Your task to perform on an android device: Check the news Image 0: 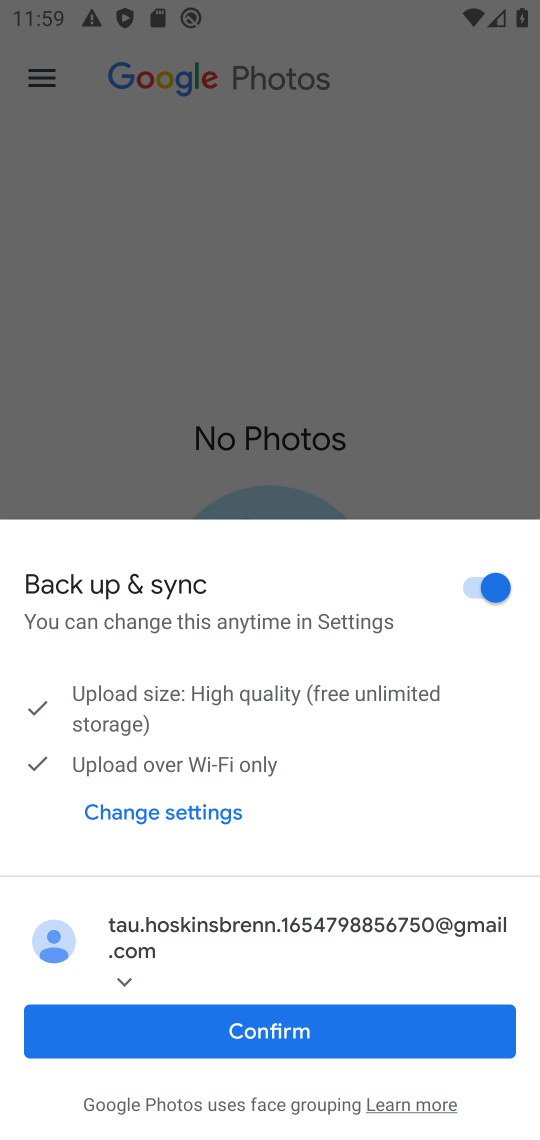
Step 0: press home button
Your task to perform on an android device: Check the news Image 1: 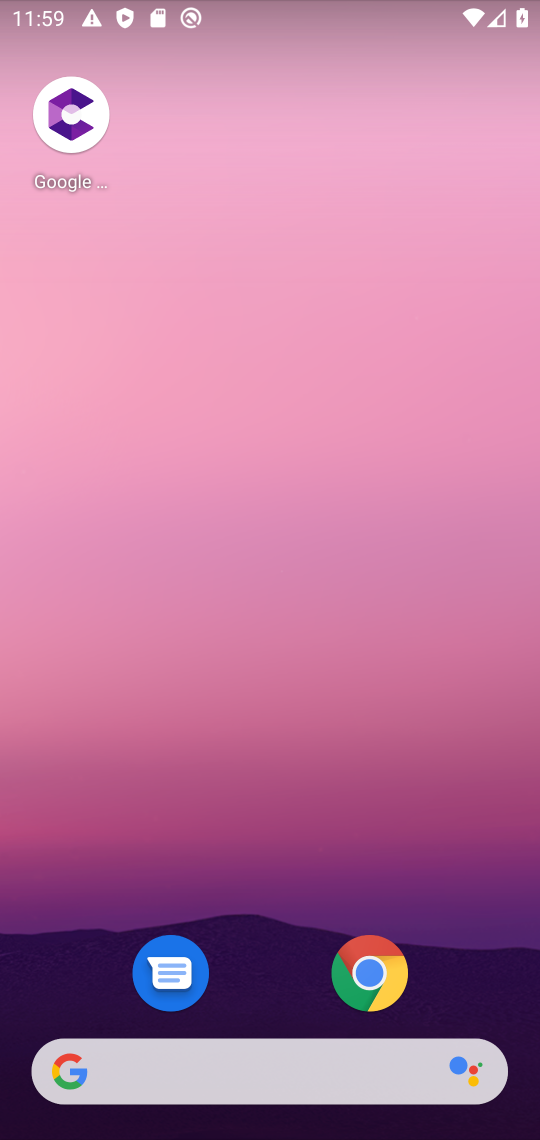
Step 1: click (354, 971)
Your task to perform on an android device: Check the news Image 2: 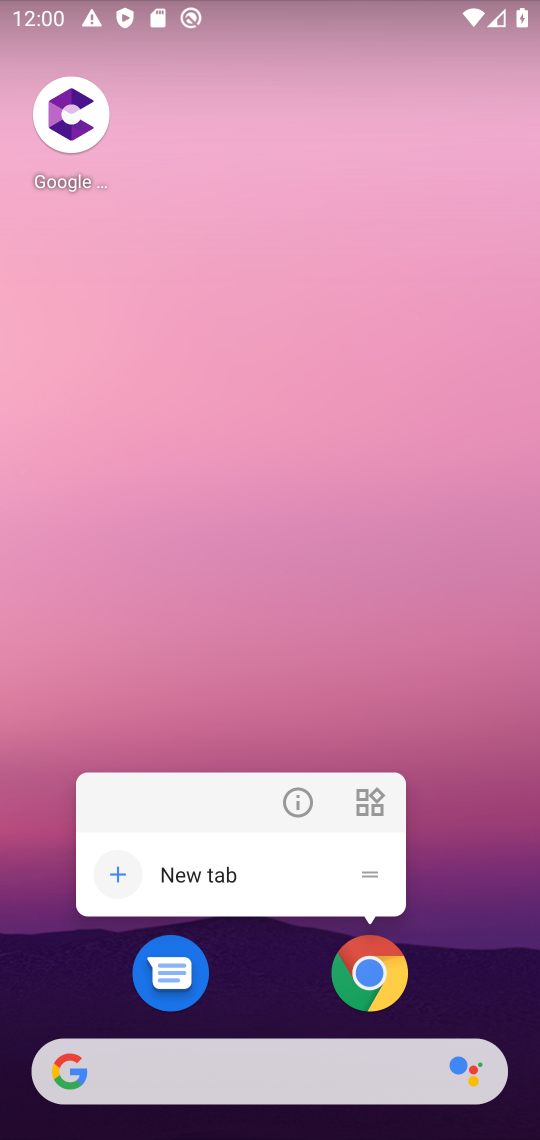
Step 2: click (379, 977)
Your task to perform on an android device: Check the news Image 3: 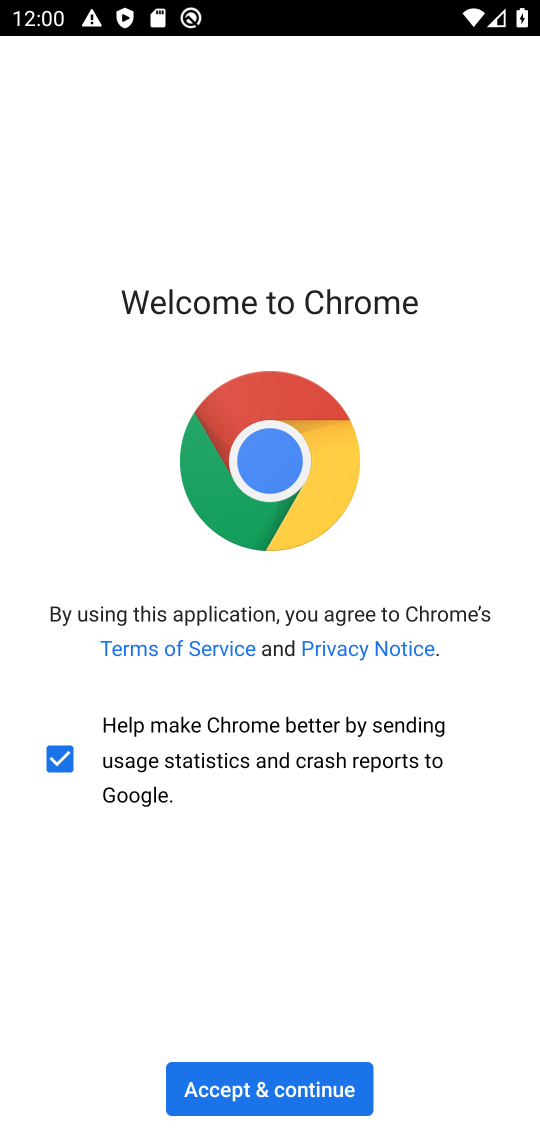
Step 3: click (285, 1074)
Your task to perform on an android device: Check the news Image 4: 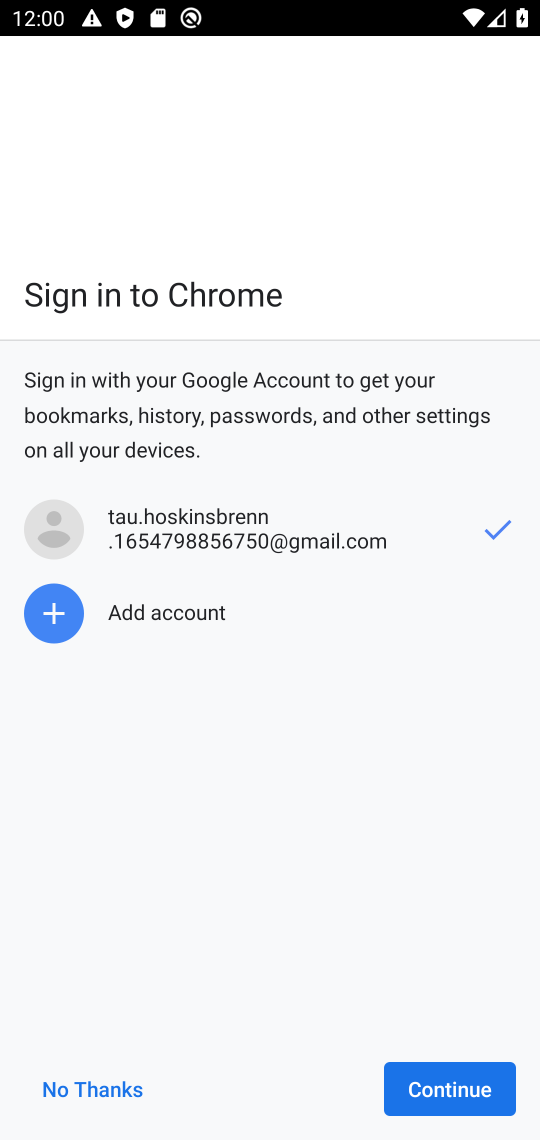
Step 4: click (432, 1079)
Your task to perform on an android device: Check the news Image 5: 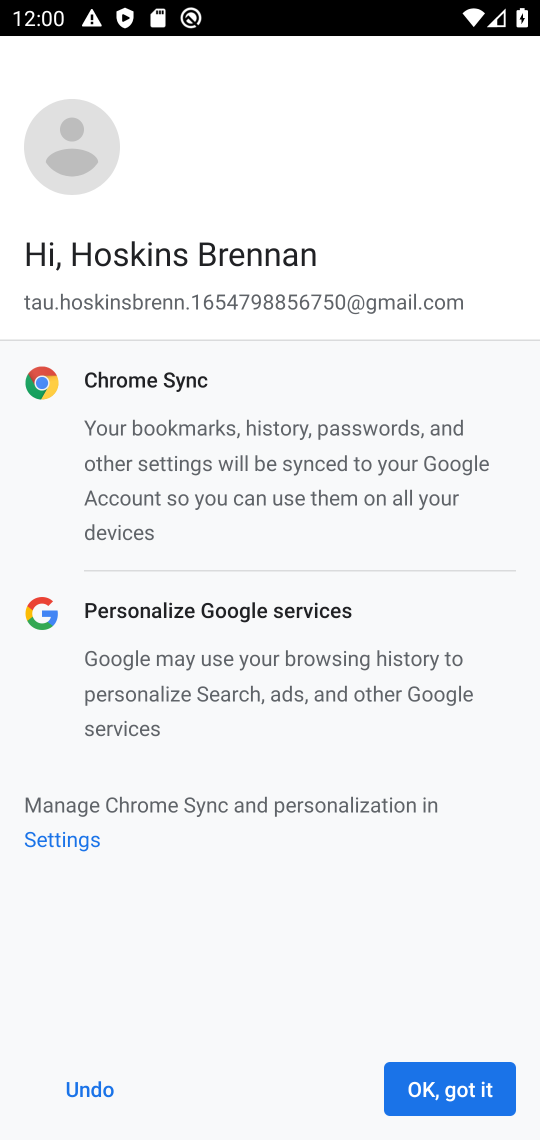
Step 5: click (459, 1093)
Your task to perform on an android device: Check the news Image 6: 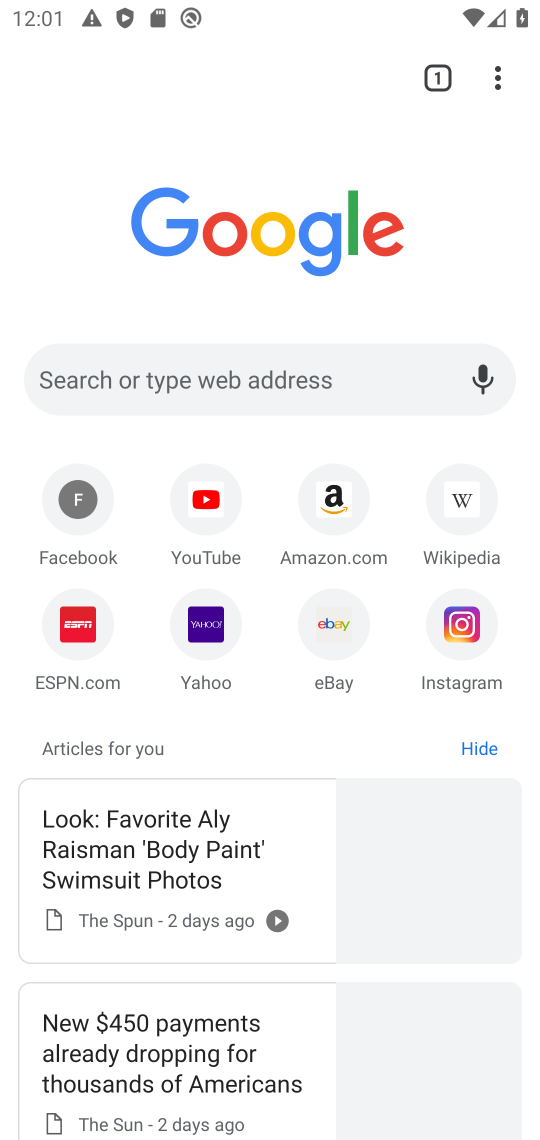
Step 6: click (196, 397)
Your task to perform on an android device: Check the news Image 7: 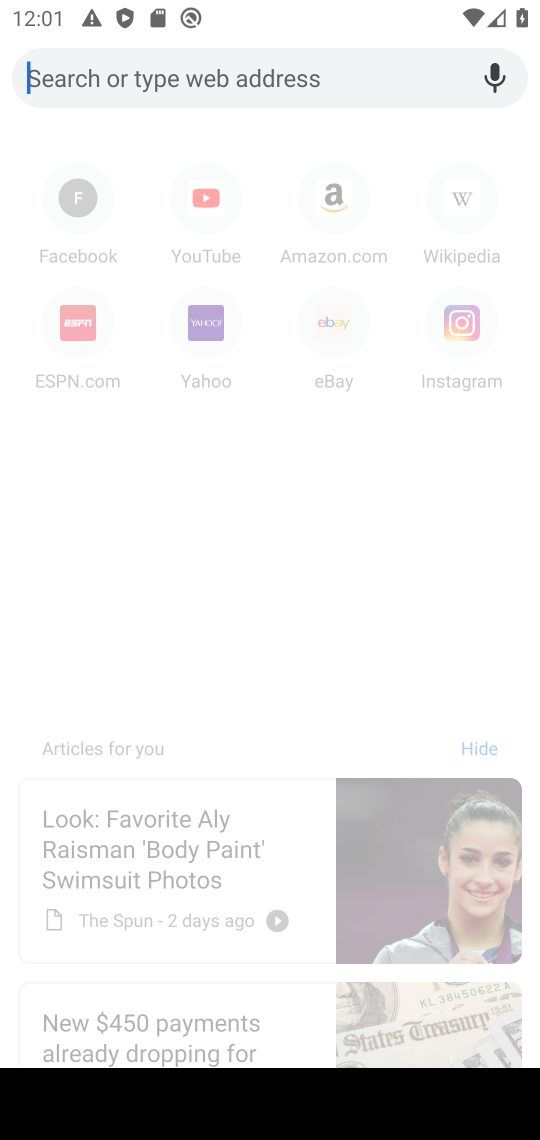
Step 7: type "news"
Your task to perform on an android device: Check the news Image 8: 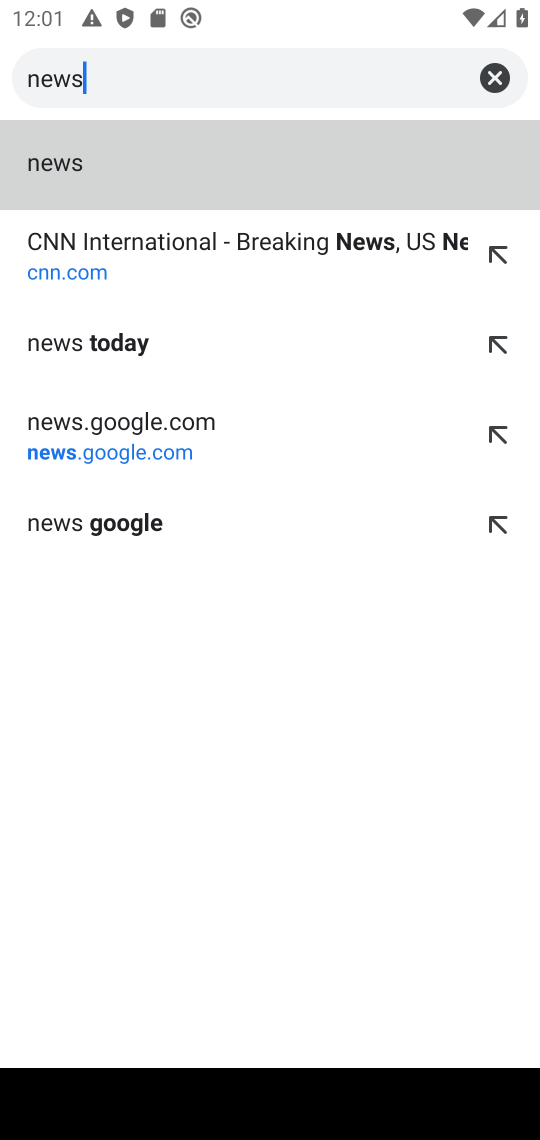
Step 8: click (94, 175)
Your task to perform on an android device: Check the news Image 9: 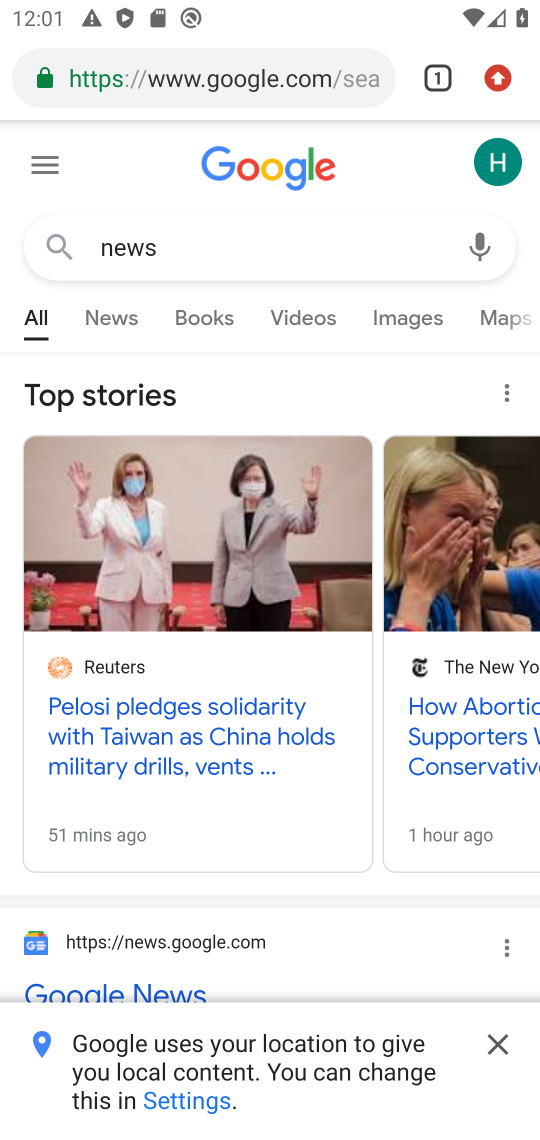
Step 9: task complete